Your task to perform on an android device: turn on bluetooth scan Image 0: 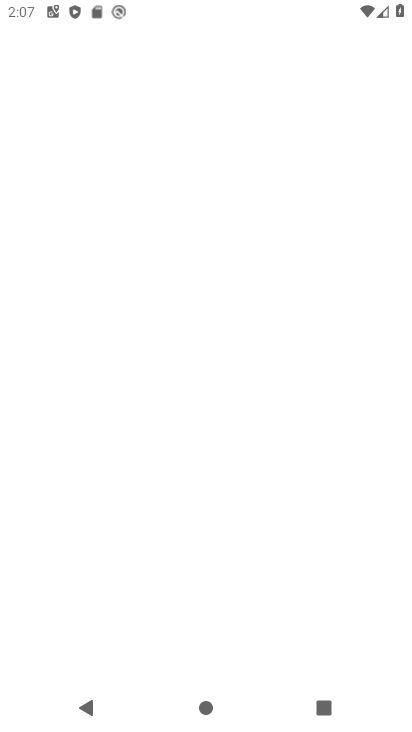
Step 0: drag from (303, 566) to (261, 292)
Your task to perform on an android device: turn on bluetooth scan Image 1: 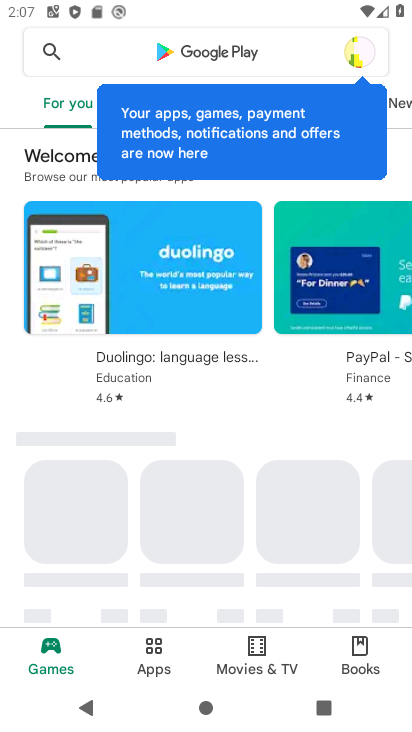
Step 1: press home button
Your task to perform on an android device: turn on bluetooth scan Image 2: 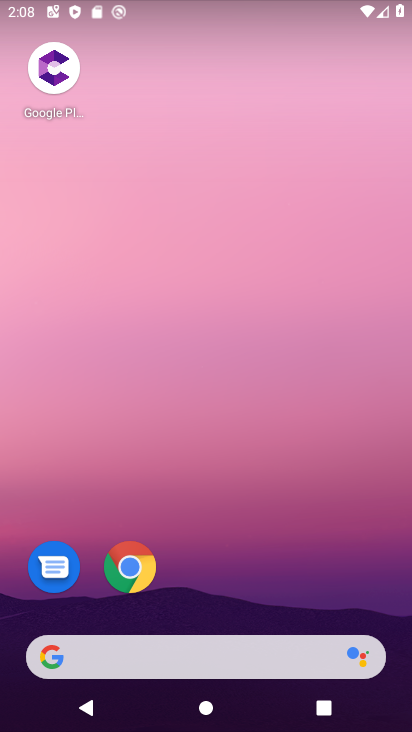
Step 2: drag from (257, 574) to (333, 181)
Your task to perform on an android device: turn on bluetooth scan Image 3: 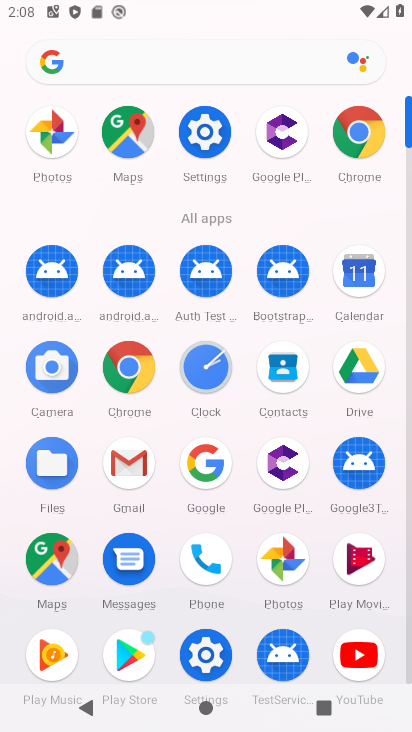
Step 3: click (200, 662)
Your task to perform on an android device: turn on bluetooth scan Image 4: 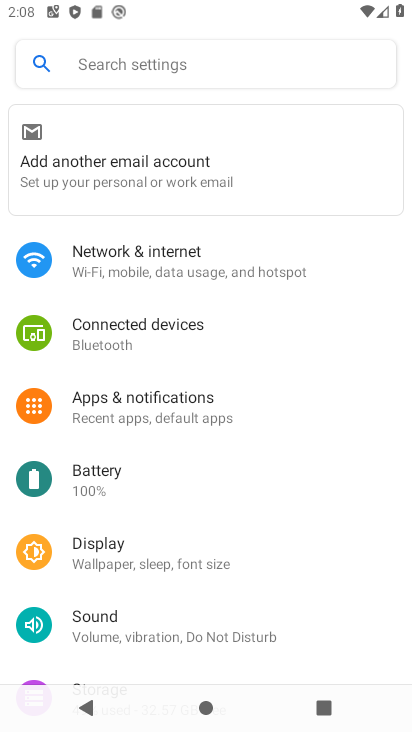
Step 4: drag from (112, 598) to (106, 466)
Your task to perform on an android device: turn on bluetooth scan Image 5: 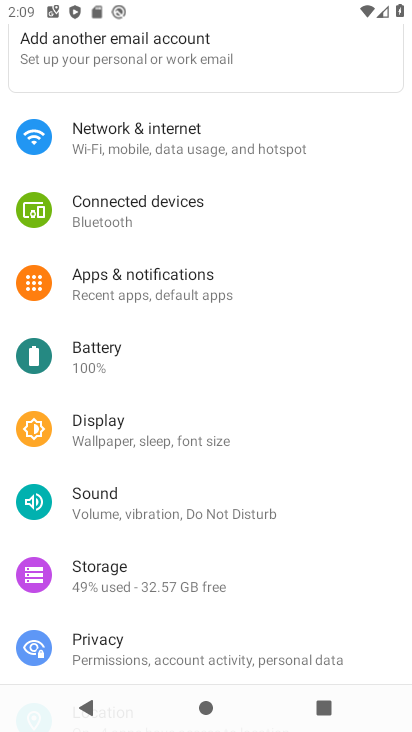
Step 5: drag from (118, 628) to (118, 481)
Your task to perform on an android device: turn on bluetooth scan Image 6: 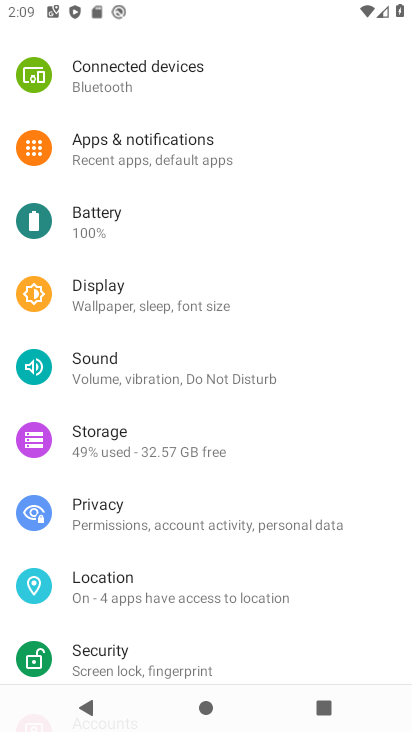
Step 6: click (117, 582)
Your task to perform on an android device: turn on bluetooth scan Image 7: 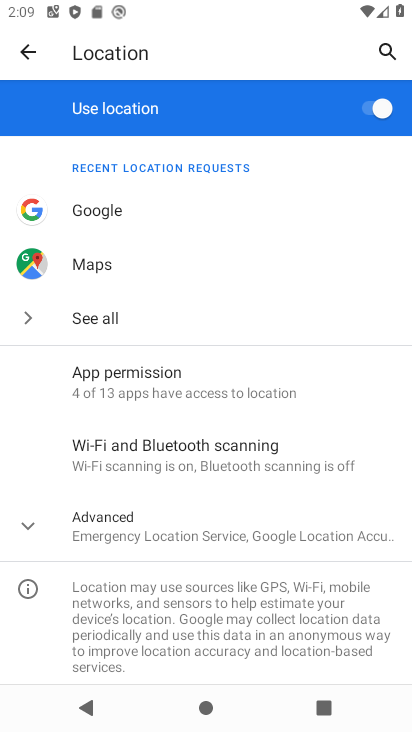
Step 7: click (114, 461)
Your task to perform on an android device: turn on bluetooth scan Image 8: 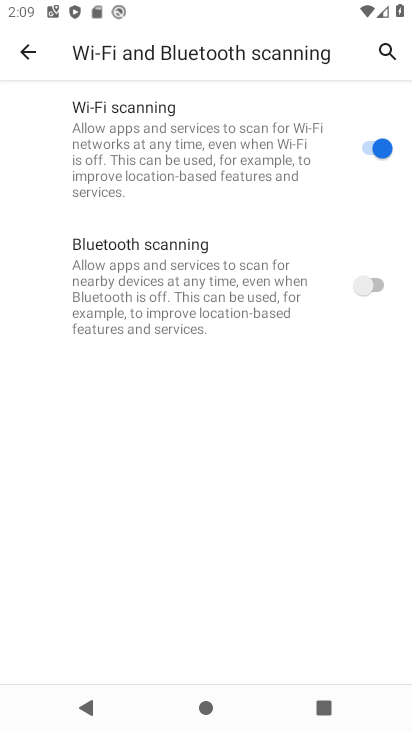
Step 8: click (375, 275)
Your task to perform on an android device: turn on bluetooth scan Image 9: 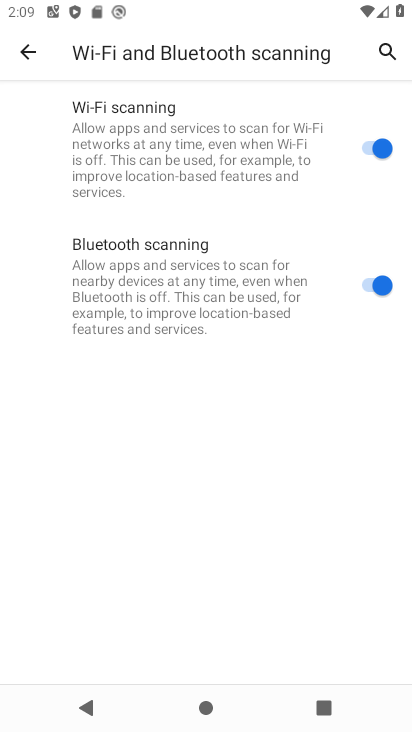
Step 9: task complete